Your task to perform on an android device: toggle airplane mode Image 0: 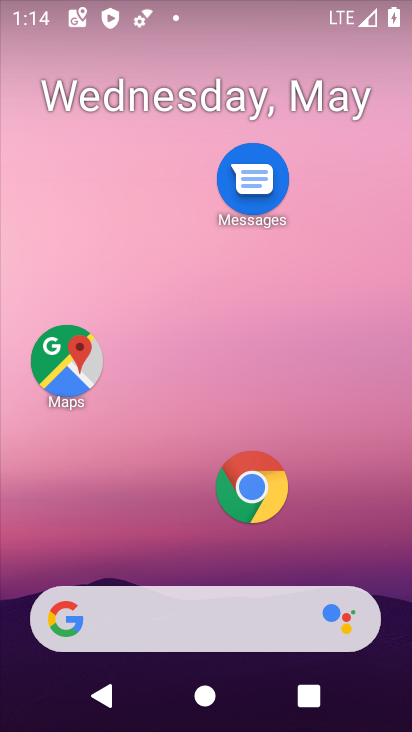
Step 0: drag from (155, 552) to (212, 77)
Your task to perform on an android device: toggle airplane mode Image 1: 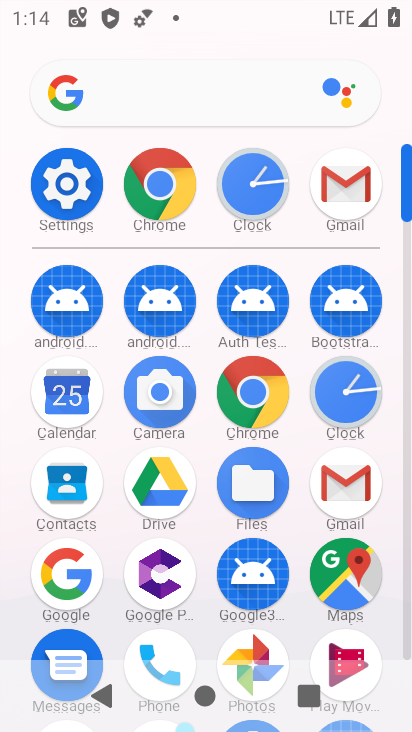
Step 1: click (52, 190)
Your task to perform on an android device: toggle airplane mode Image 2: 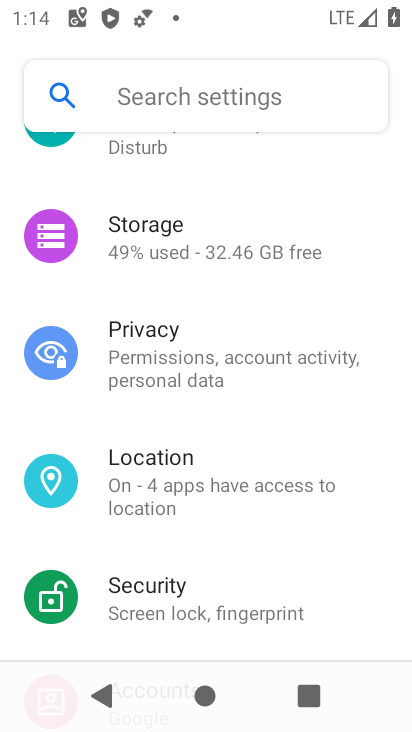
Step 2: drag from (240, 198) to (227, 526)
Your task to perform on an android device: toggle airplane mode Image 3: 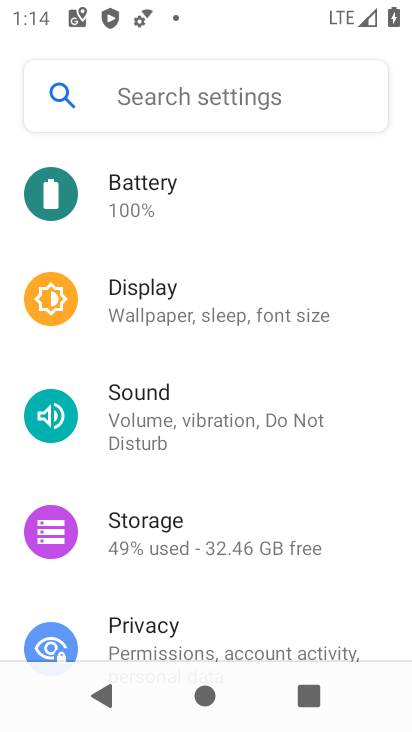
Step 3: drag from (219, 247) to (223, 546)
Your task to perform on an android device: toggle airplane mode Image 4: 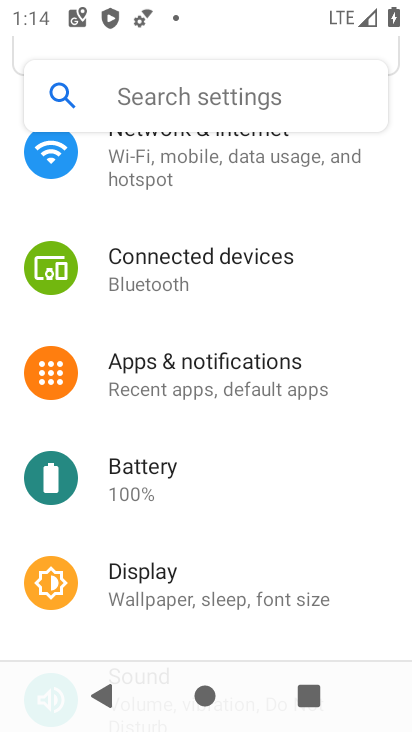
Step 4: drag from (255, 180) to (272, 426)
Your task to perform on an android device: toggle airplane mode Image 5: 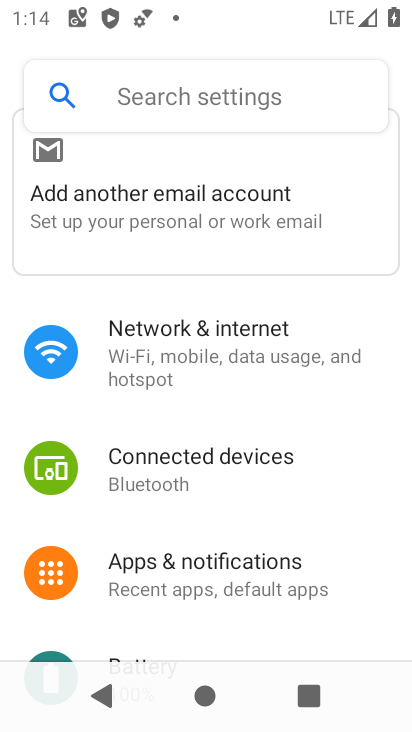
Step 5: click (226, 336)
Your task to perform on an android device: toggle airplane mode Image 6: 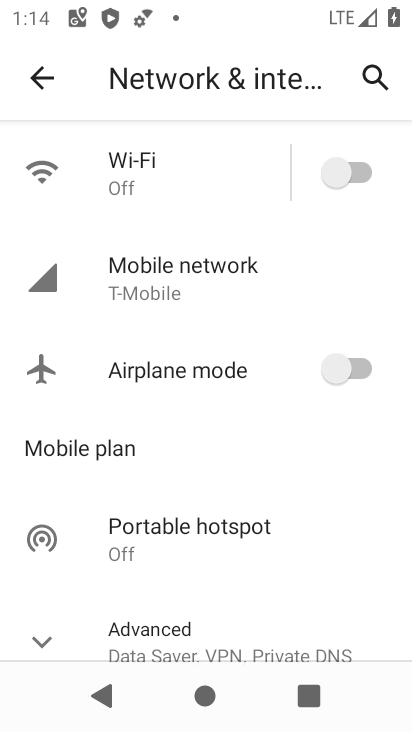
Step 6: click (351, 369)
Your task to perform on an android device: toggle airplane mode Image 7: 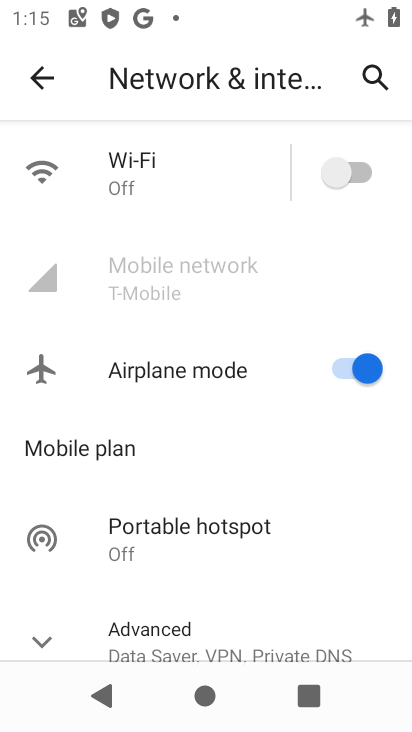
Step 7: task complete